Your task to perform on an android device: Is it going to rain tomorrow? Image 0: 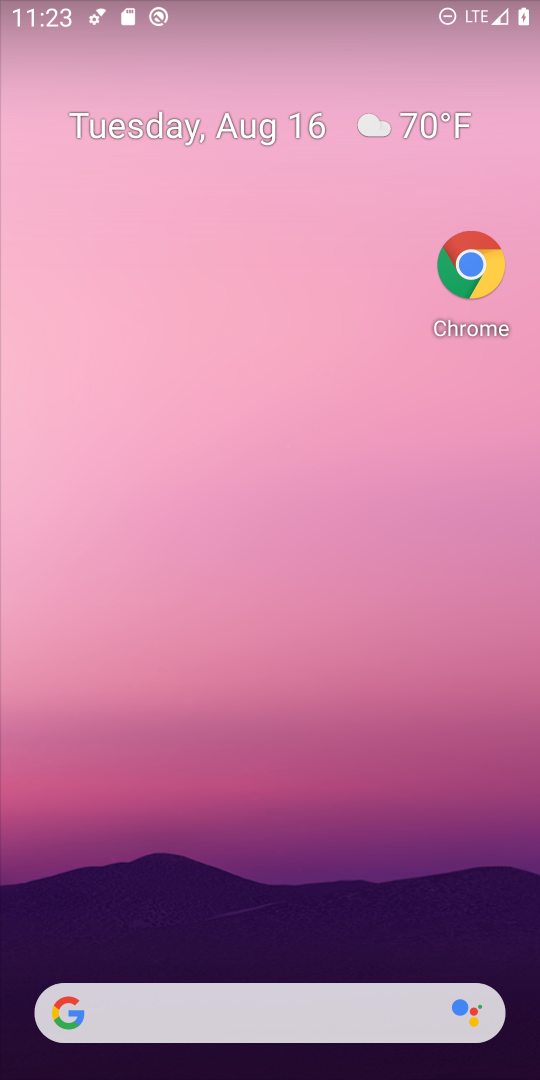
Step 0: drag from (380, 672) to (524, 148)
Your task to perform on an android device: Is it going to rain tomorrow? Image 1: 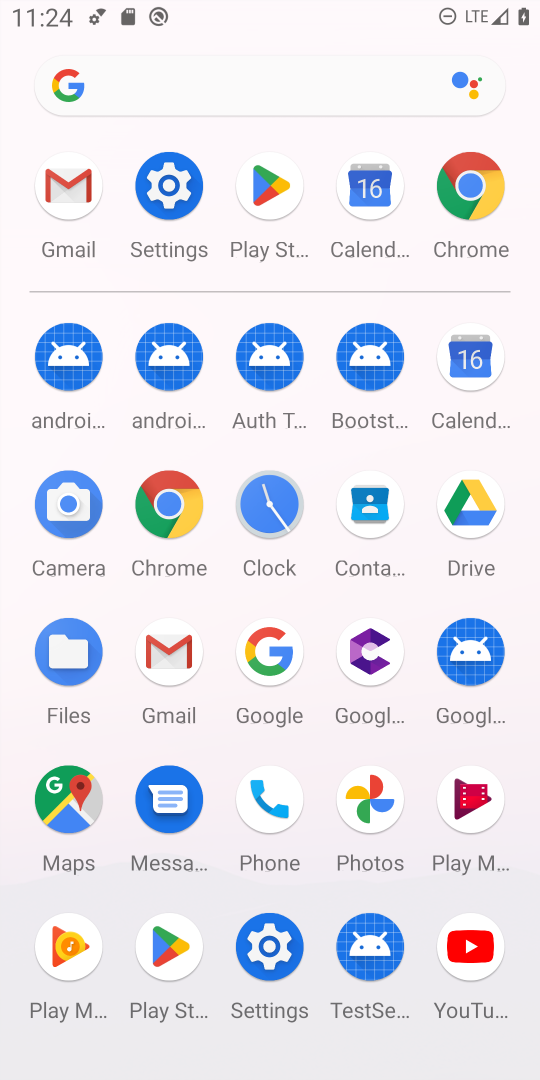
Step 1: click (259, 688)
Your task to perform on an android device: Is it going to rain tomorrow? Image 2: 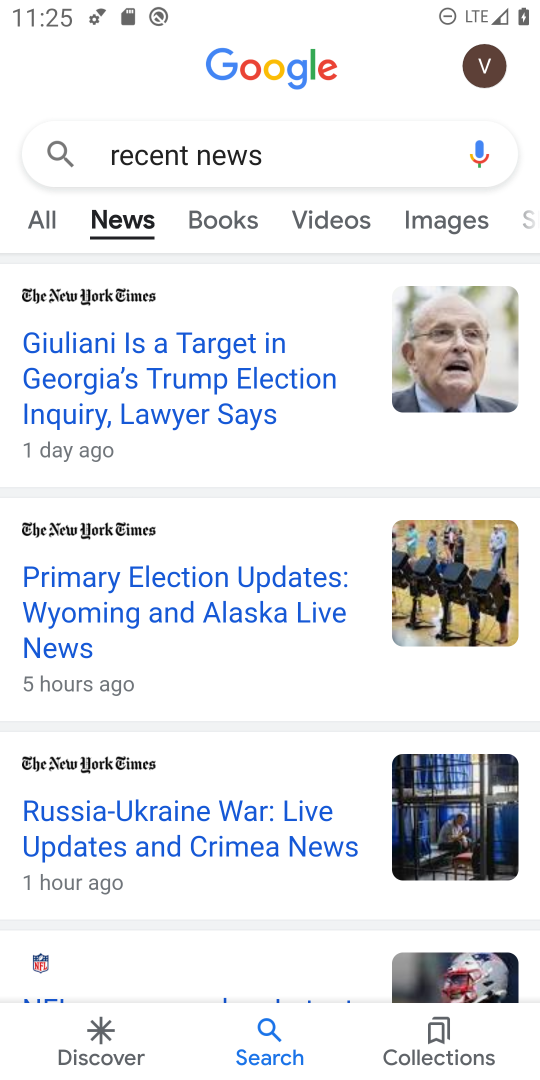
Step 2: click (339, 150)
Your task to perform on an android device: Is it going to rain tomorrow? Image 3: 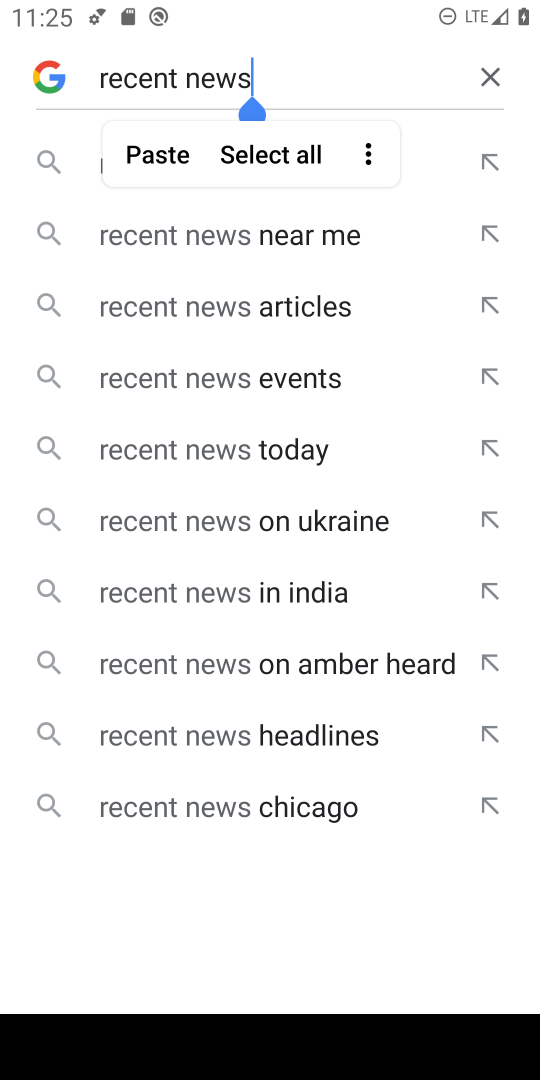
Step 3: click (488, 63)
Your task to perform on an android device: Is it going to rain tomorrow? Image 4: 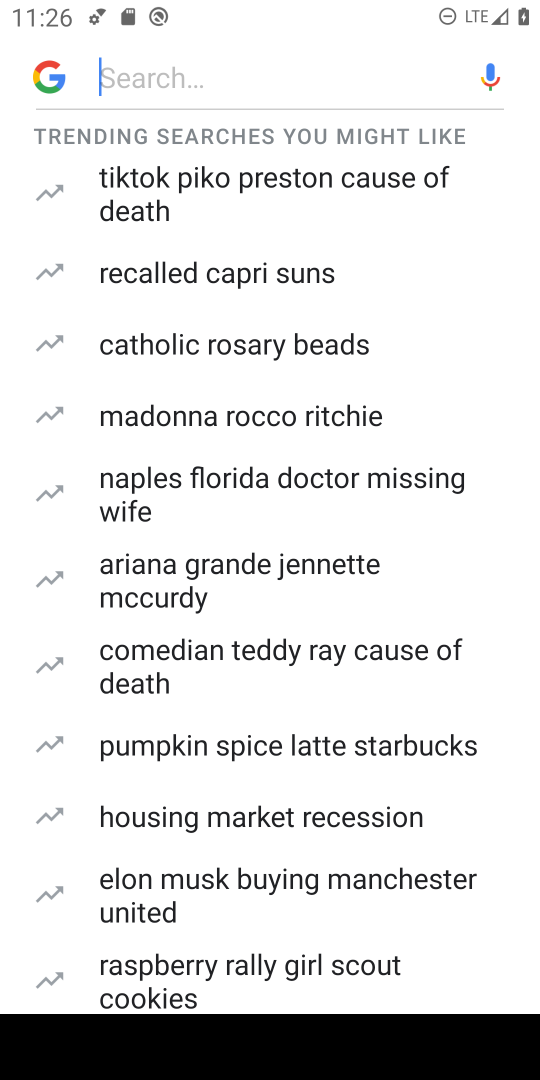
Step 4: type "rain tomorrow"
Your task to perform on an android device: Is it going to rain tomorrow? Image 5: 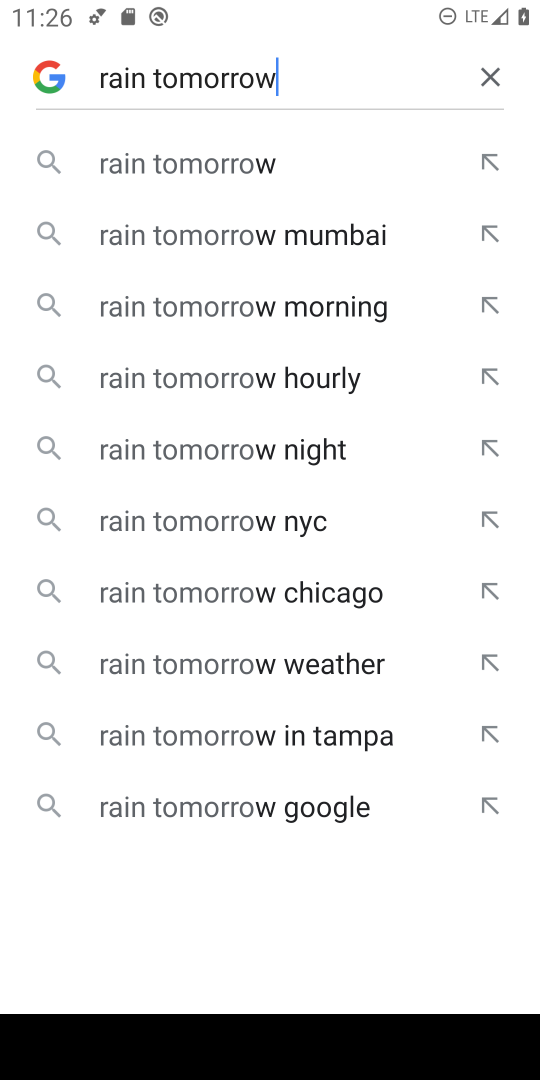
Step 5: type ""
Your task to perform on an android device: Is it going to rain tomorrow? Image 6: 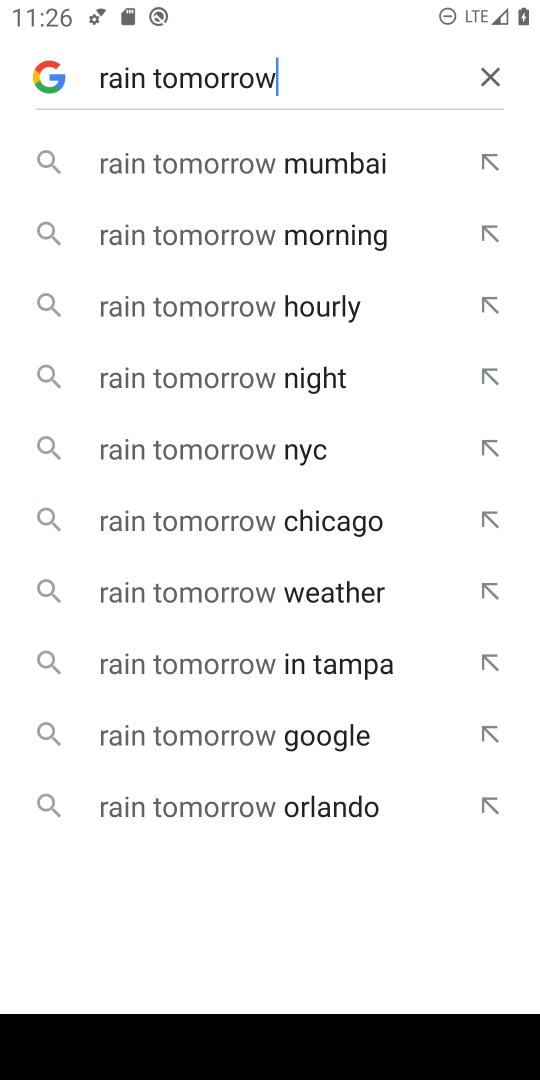
Step 6: click (342, 584)
Your task to perform on an android device: Is it going to rain tomorrow? Image 7: 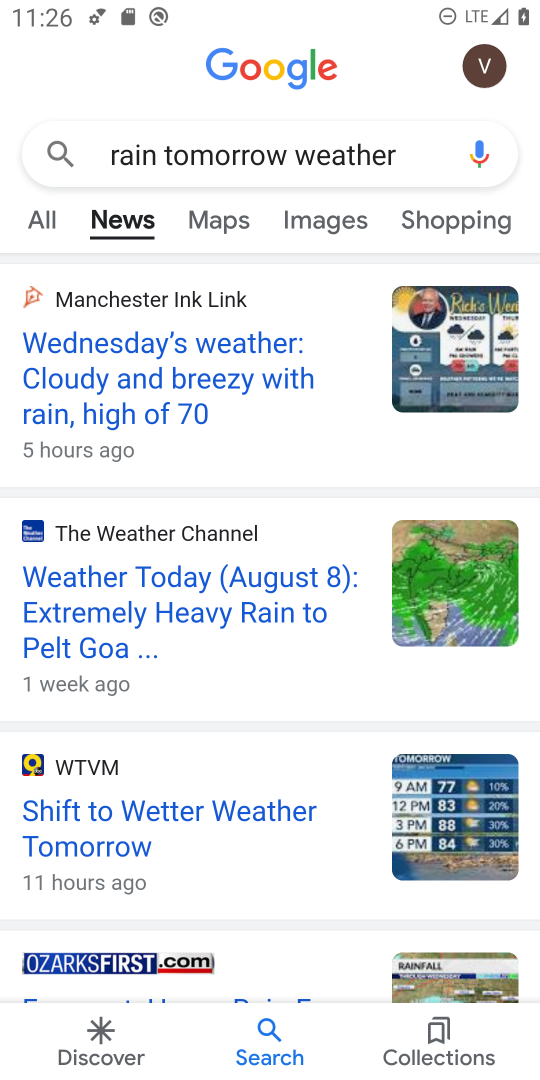
Step 7: click (60, 228)
Your task to perform on an android device: Is it going to rain tomorrow? Image 8: 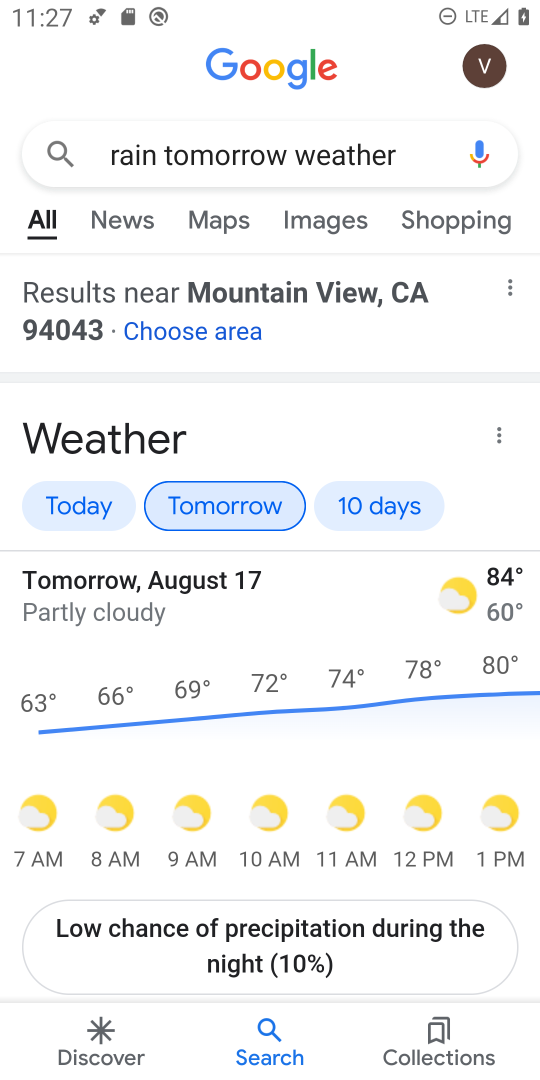
Step 8: task complete